Your task to perform on an android device: turn on javascript in the chrome app Image 0: 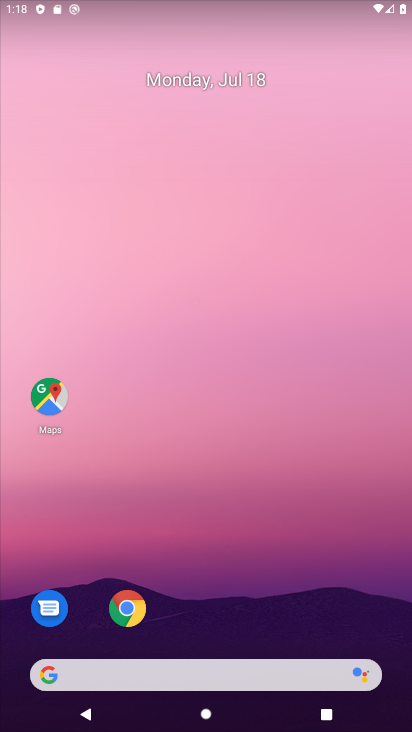
Step 0: click (131, 611)
Your task to perform on an android device: turn on javascript in the chrome app Image 1: 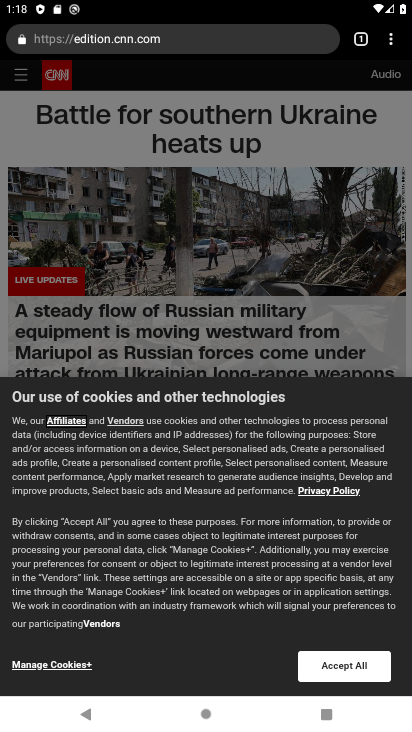
Step 1: click (392, 44)
Your task to perform on an android device: turn on javascript in the chrome app Image 2: 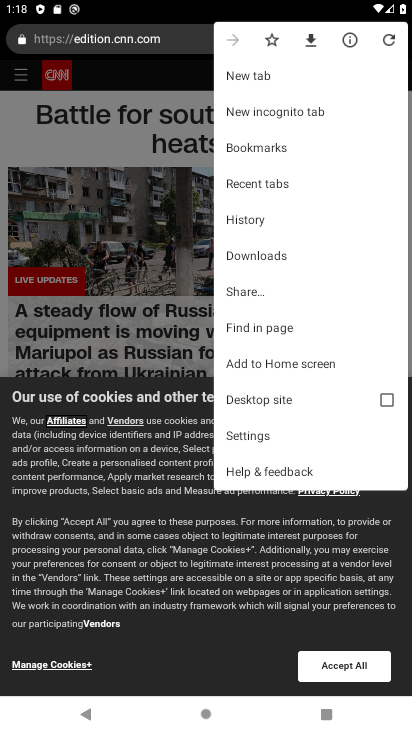
Step 2: click (247, 435)
Your task to perform on an android device: turn on javascript in the chrome app Image 3: 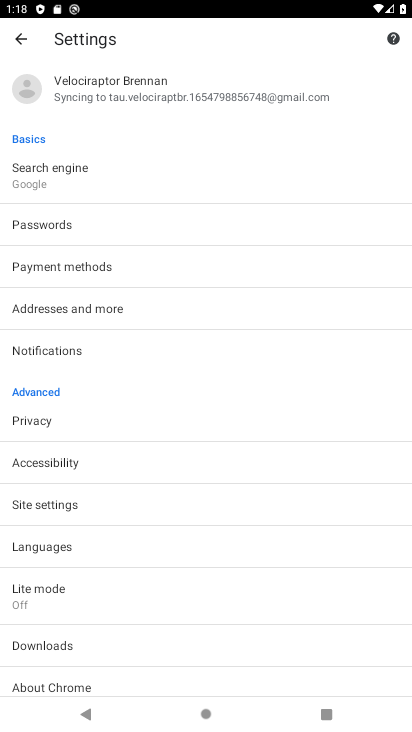
Step 3: click (49, 508)
Your task to perform on an android device: turn on javascript in the chrome app Image 4: 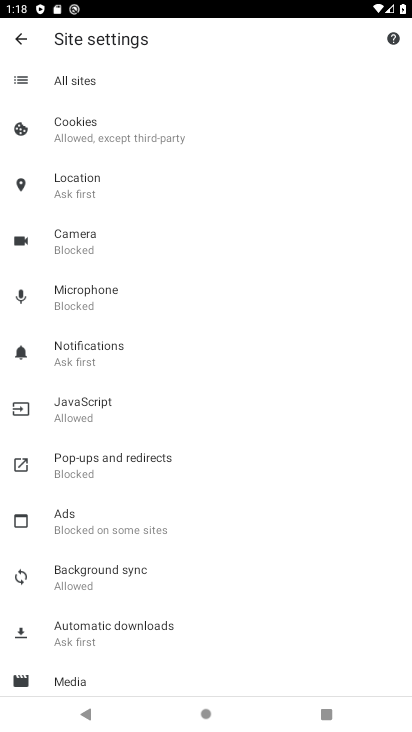
Step 4: click (78, 408)
Your task to perform on an android device: turn on javascript in the chrome app Image 5: 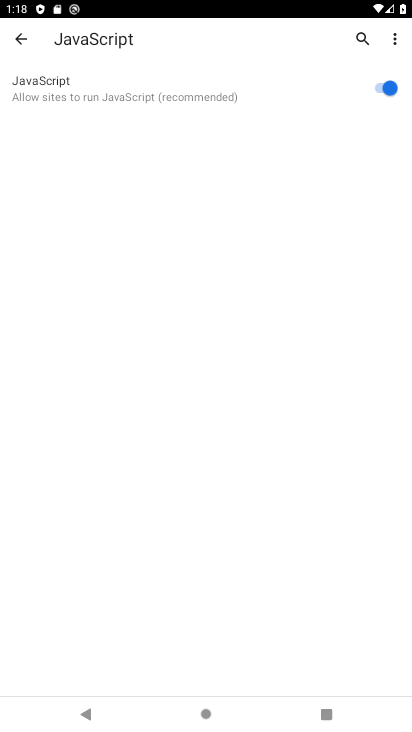
Step 5: task complete